Your task to perform on an android device: turn on sleep mode Image 0: 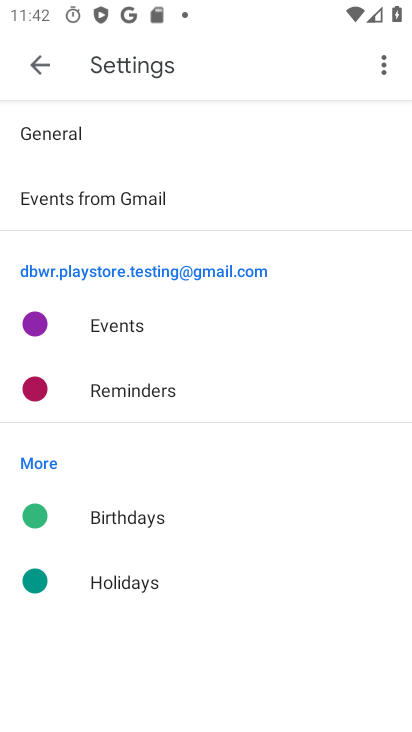
Step 0: press back button
Your task to perform on an android device: turn on sleep mode Image 1: 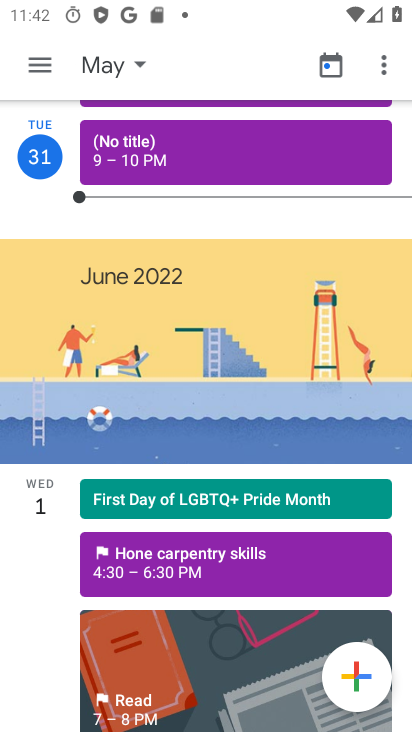
Step 1: press back button
Your task to perform on an android device: turn on sleep mode Image 2: 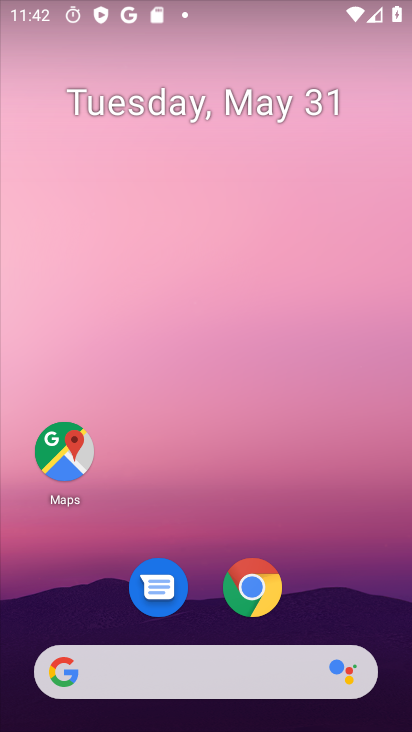
Step 2: drag from (318, 499) to (254, 144)
Your task to perform on an android device: turn on sleep mode Image 3: 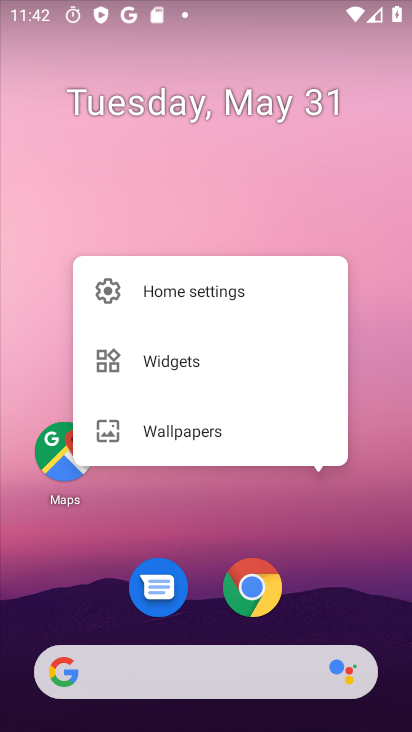
Step 3: click (341, 177)
Your task to perform on an android device: turn on sleep mode Image 4: 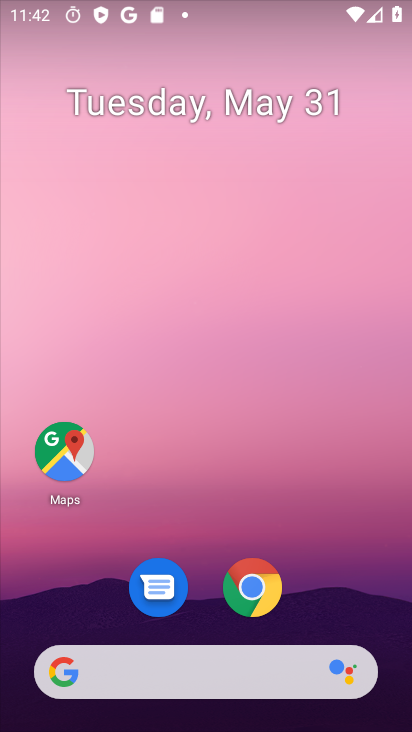
Step 4: drag from (307, 520) to (241, 24)
Your task to perform on an android device: turn on sleep mode Image 5: 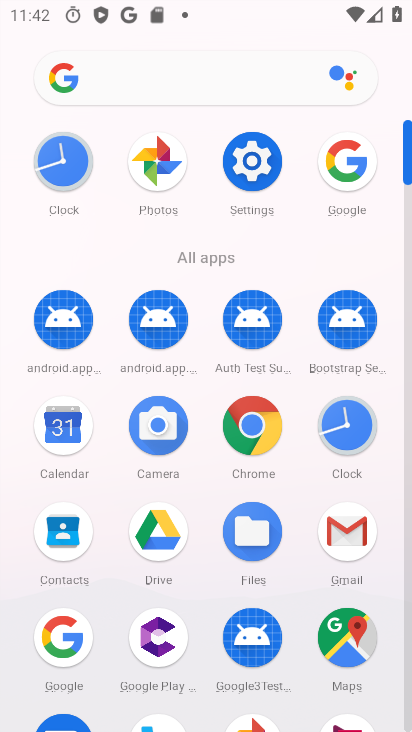
Step 5: click (250, 161)
Your task to perform on an android device: turn on sleep mode Image 6: 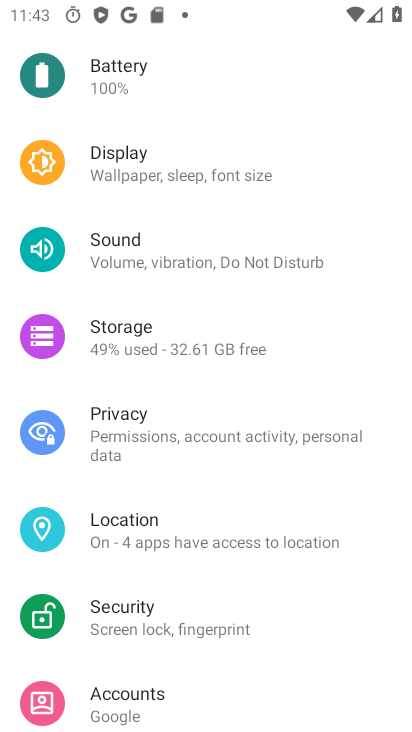
Step 6: drag from (185, 140) to (189, 284)
Your task to perform on an android device: turn on sleep mode Image 7: 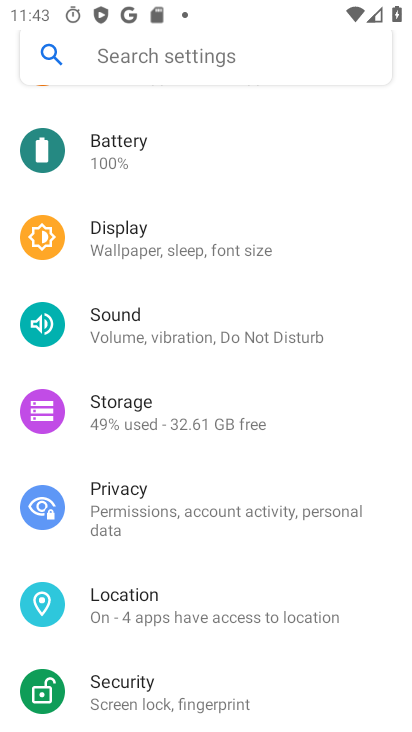
Step 7: drag from (226, 191) to (200, 297)
Your task to perform on an android device: turn on sleep mode Image 8: 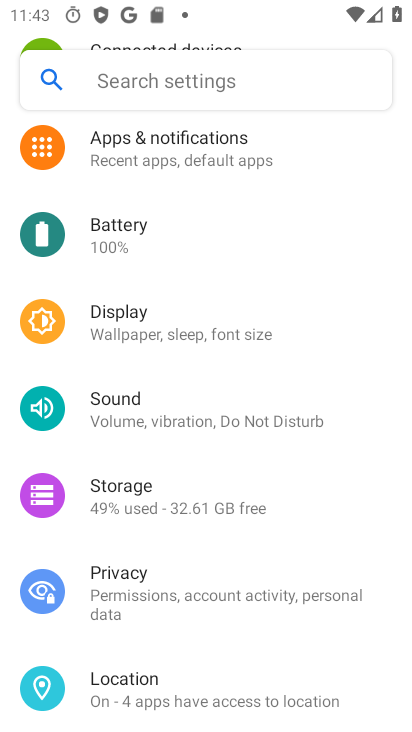
Step 8: click (188, 333)
Your task to perform on an android device: turn on sleep mode Image 9: 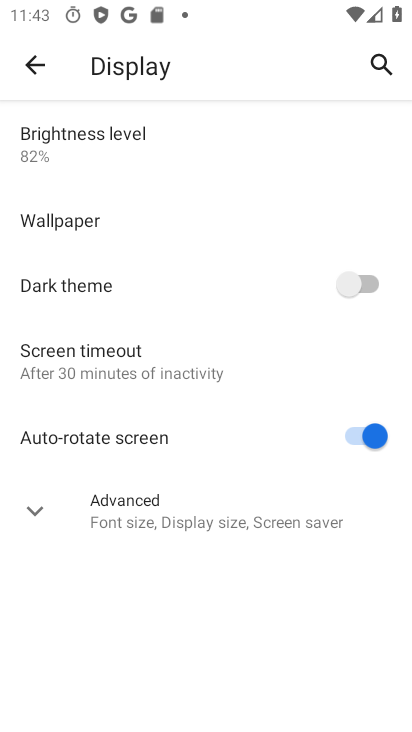
Step 9: click (186, 518)
Your task to perform on an android device: turn on sleep mode Image 10: 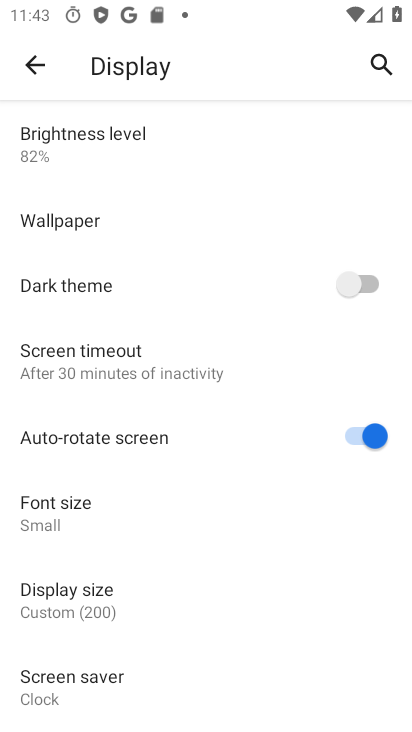
Step 10: drag from (90, 554) to (153, 464)
Your task to perform on an android device: turn on sleep mode Image 11: 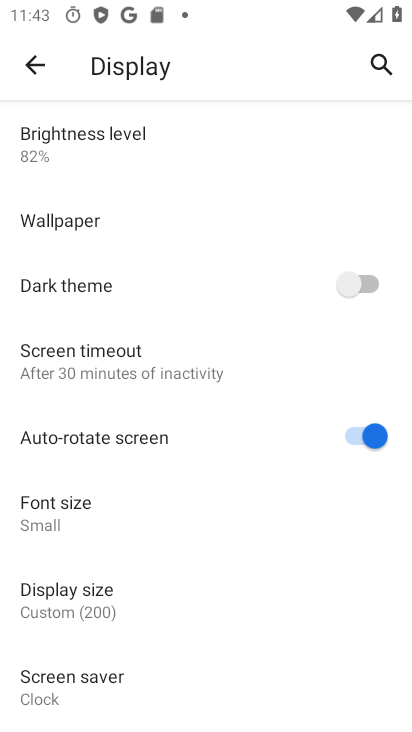
Step 11: click (120, 363)
Your task to perform on an android device: turn on sleep mode Image 12: 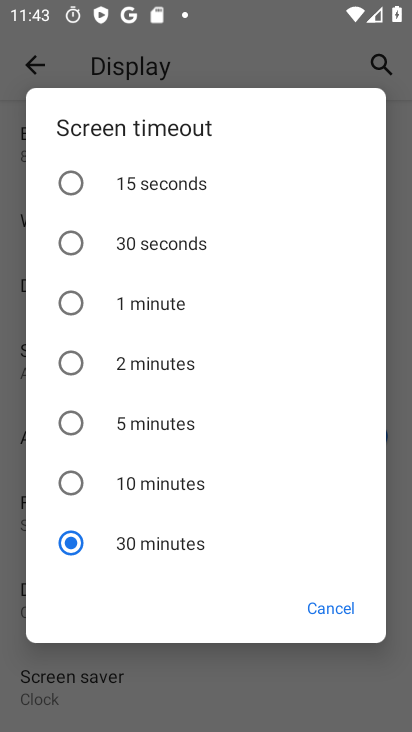
Step 12: click (343, 628)
Your task to perform on an android device: turn on sleep mode Image 13: 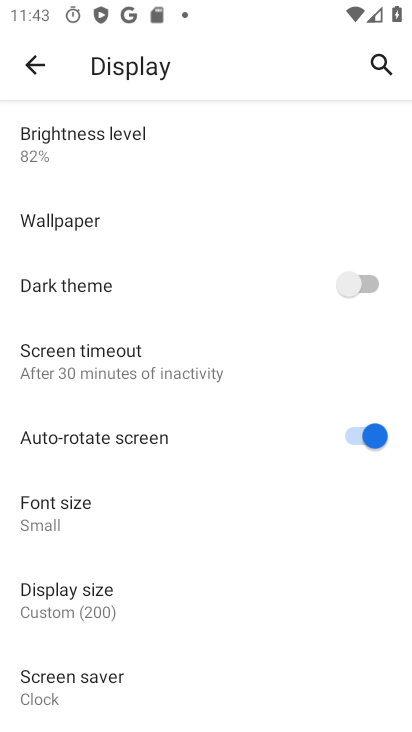
Step 13: task complete